Your task to perform on an android device: What is the recent news? Image 0: 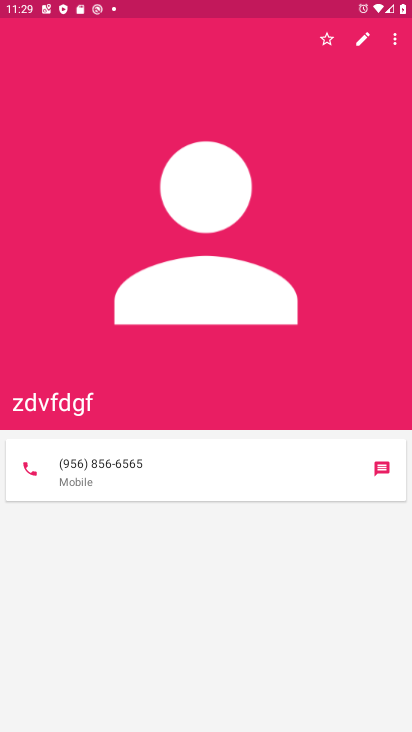
Step 0: press home button
Your task to perform on an android device: What is the recent news? Image 1: 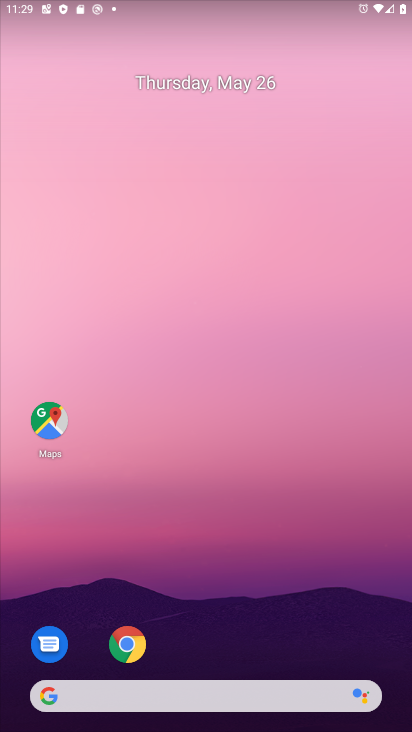
Step 1: drag from (209, 629) to (196, 205)
Your task to perform on an android device: What is the recent news? Image 2: 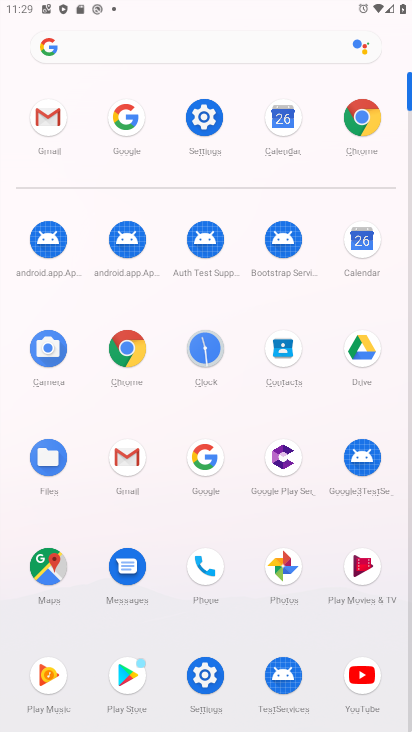
Step 2: click (115, 132)
Your task to perform on an android device: What is the recent news? Image 3: 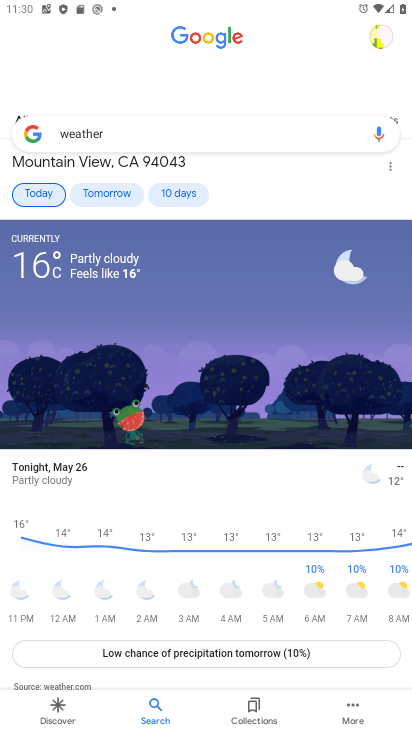
Step 3: click (165, 134)
Your task to perform on an android device: What is the recent news? Image 4: 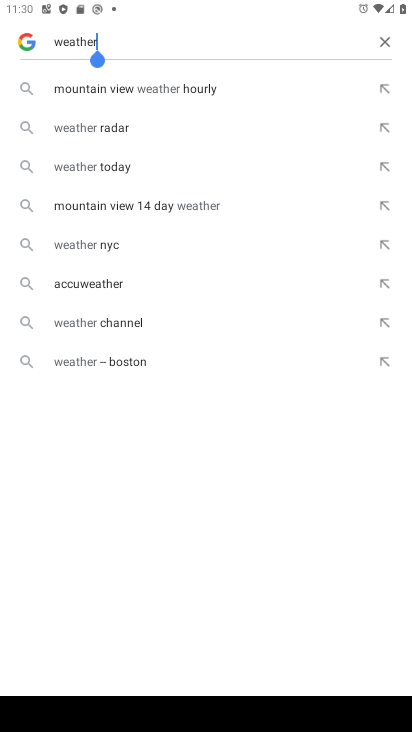
Step 4: click (380, 43)
Your task to perform on an android device: What is the recent news? Image 5: 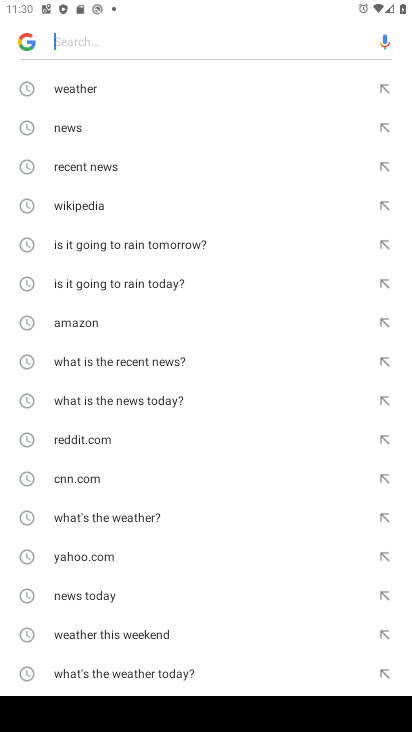
Step 5: click (98, 120)
Your task to perform on an android device: What is the recent news? Image 6: 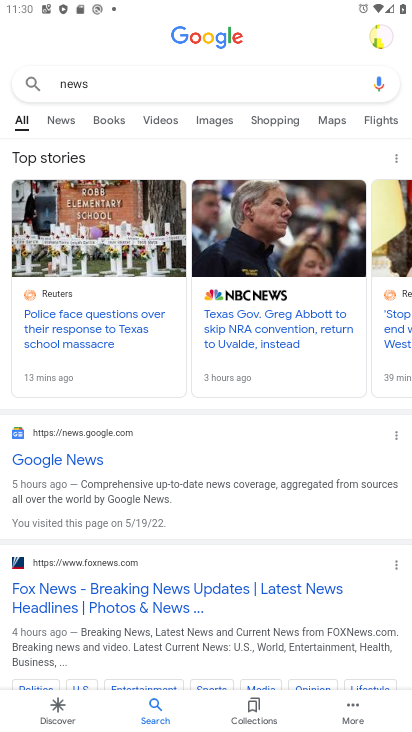
Step 6: click (63, 114)
Your task to perform on an android device: What is the recent news? Image 7: 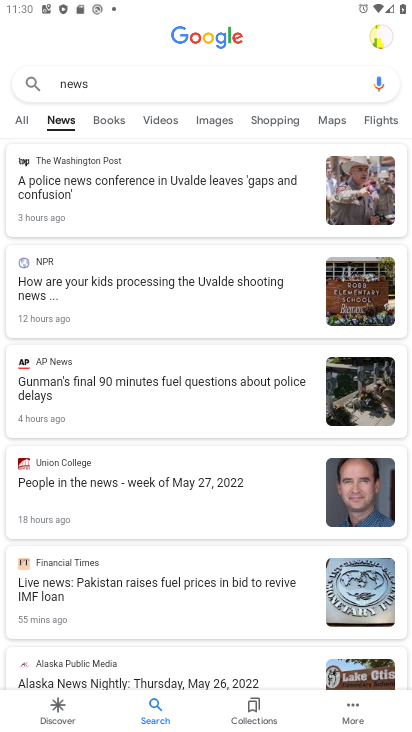
Step 7: task complete